Your task to perform on an android device: Set the phone to "Do not disturb". Image 0: 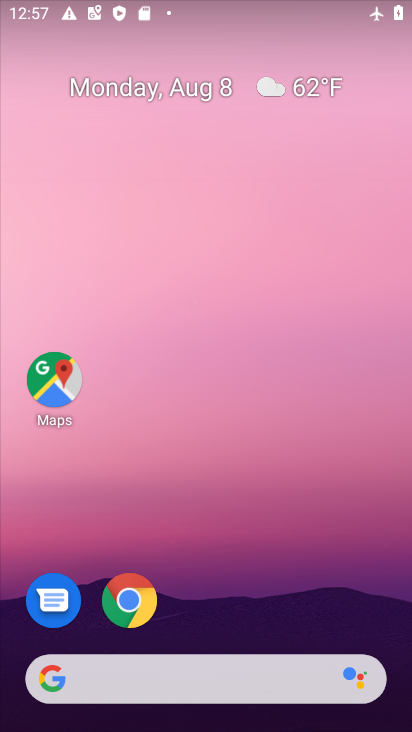
Step 0: drag from (234, 593) to (218, 163)
Your task to perform on an android device: Set the phone to "Do not disturb". Image 1: 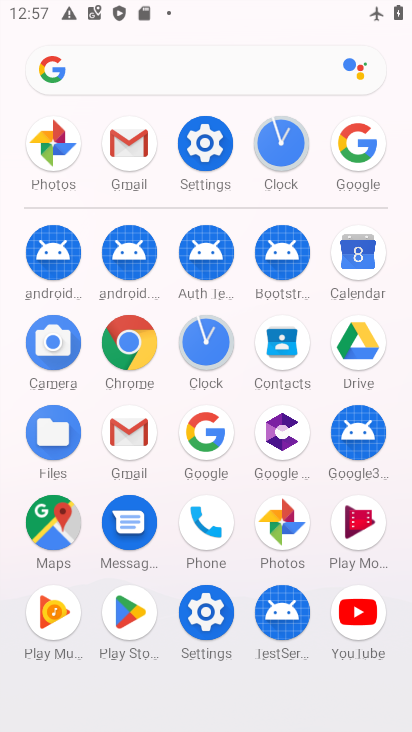
Step 1: click (212, 151)
Your task to perform on an android device: Set the phone to "Do not disturb". Image 2: 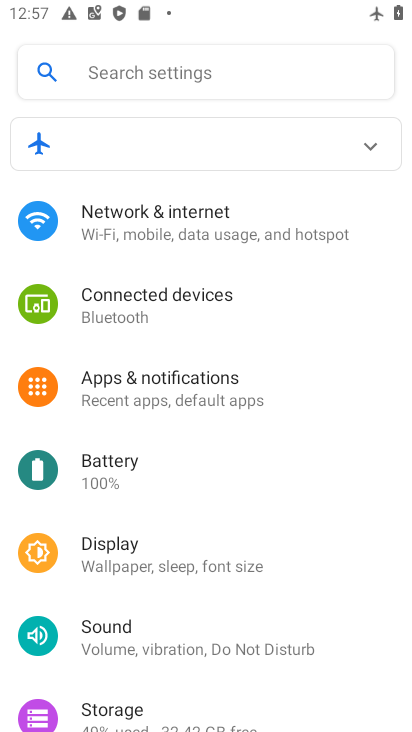
Step 2: click (233, 631)
Your task to perform on an android device: Set the phone to "Do not disturb". Image 3: 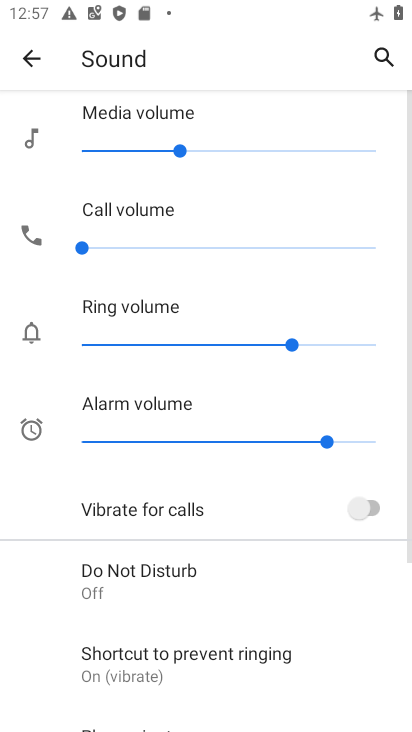
Step 3: click (214, 582)
Your task to perform on an android device: Set the phone to "Do not disturb". Image 4: 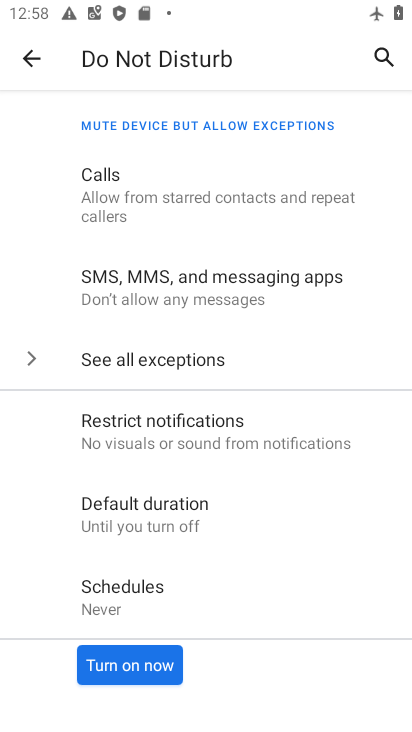
Step 4: click (156, 648)
Your task to perform on an android device: Set the phone to "Do not disturb". Image 5: 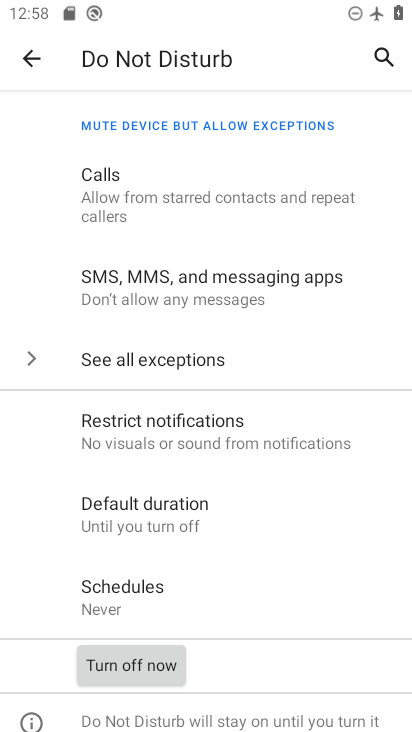
Step 5: task complete